Your task to perform on an android device: turn on data saver in the chrome app Image 0: 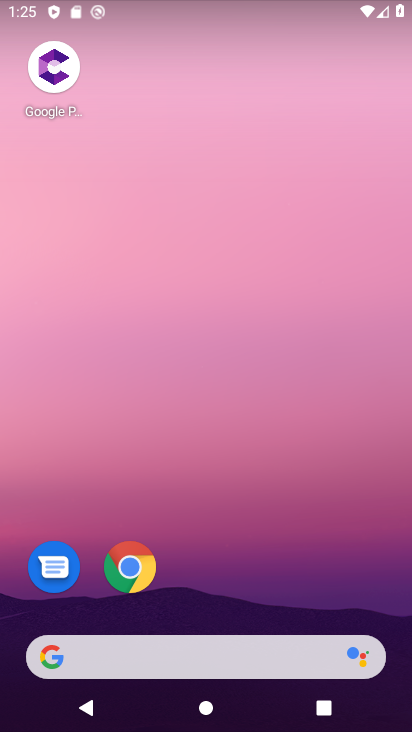
Step 0: click (129, 568)
Your task to perform on an android device: turn on data saver in the chrome app Image 1: 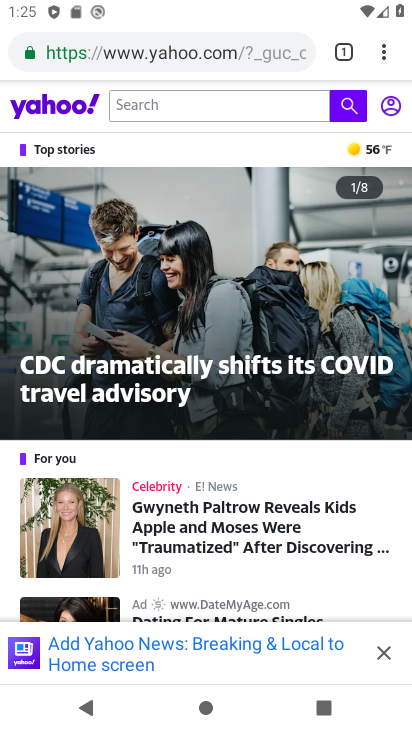
Step 1: click (386, 54)
Your task to perform on an android device: turn on data saver in the chrome app Image 2: 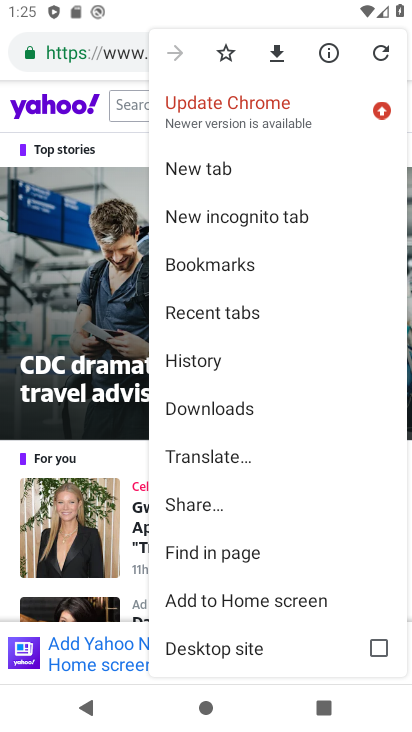
Step 2: drag from (287, 574) to (330, 233)
Your task to perform on an android device: turn on data saver in the chrome app Image 3: 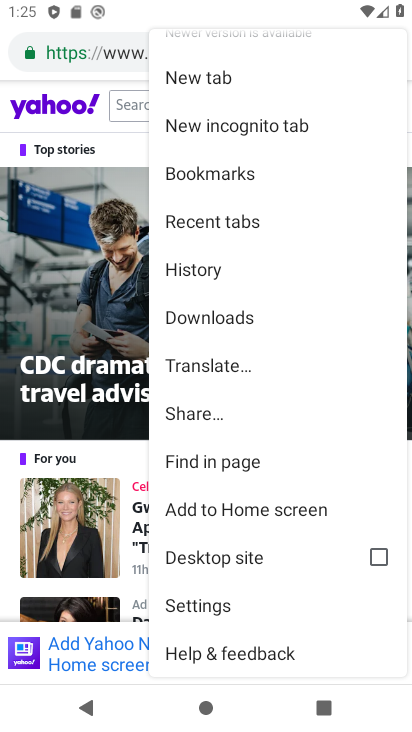
Step 3: click (196, 606)
Your task to perform on an android device: turn on data saver in the chrome app Image 4: 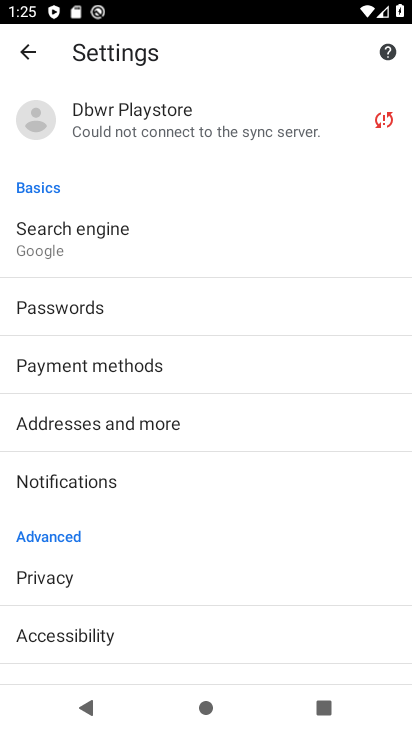
Step 4: drag from (168, 576) to (242, 201)
Your task to perform on an android device: turn on data saver in the chrome app Image 5: 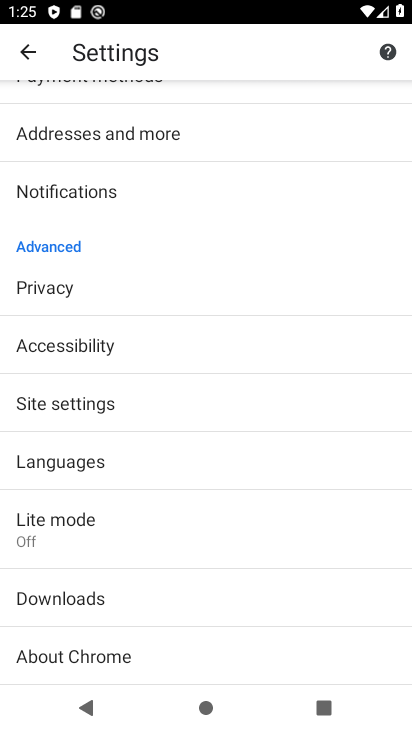
Step 5: click (44, 517)
Your task to perform on an android device: turn on data saver in the chrome app Image 6: 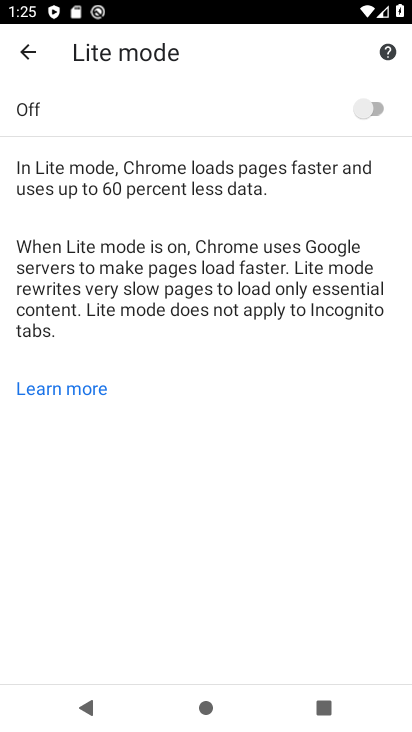
Step 6: click (371, 107)
Your task to perform on an android device: turn on data saver in the chrome app Image 7: 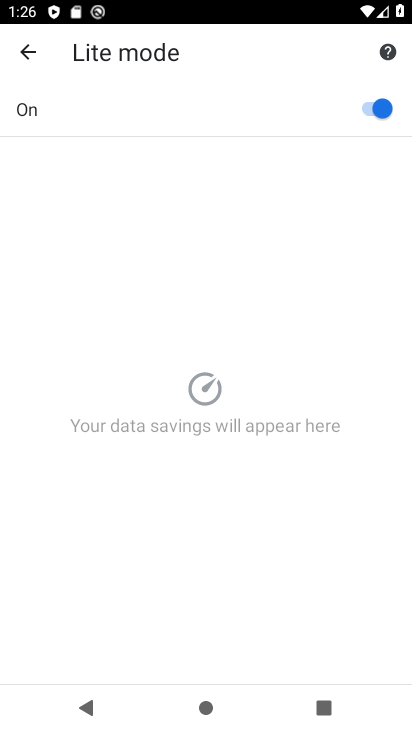
Step 7: task complete